Your task to perform on an android device: Search for "macbook pro 13 inch" on walmart, select the first entry, and add it to the cart. Image 0: 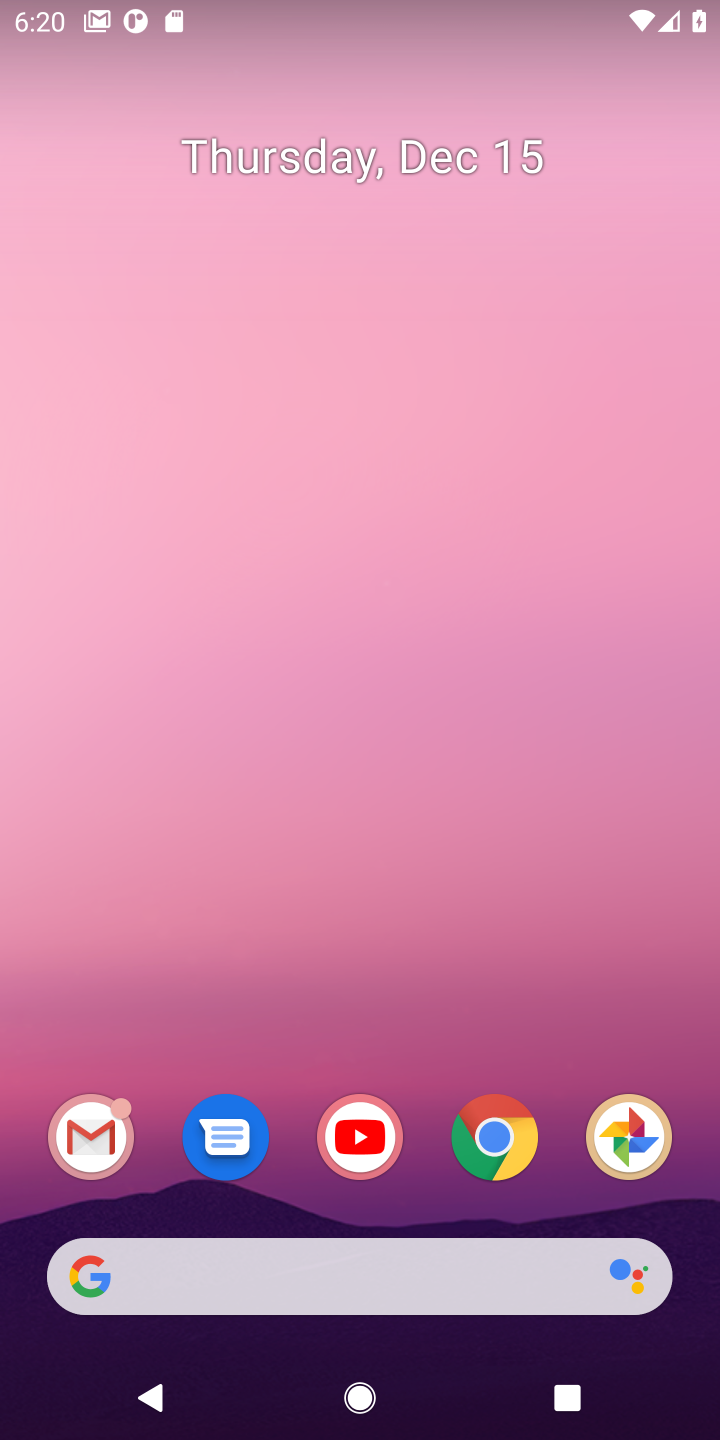
Step 0: drag from (364, 1259) to (357, 462)
Your task to perform on an android device: Search for "macbook pro 13 inch" on walmart, select the first entry, and add it to the cart. Image 1: 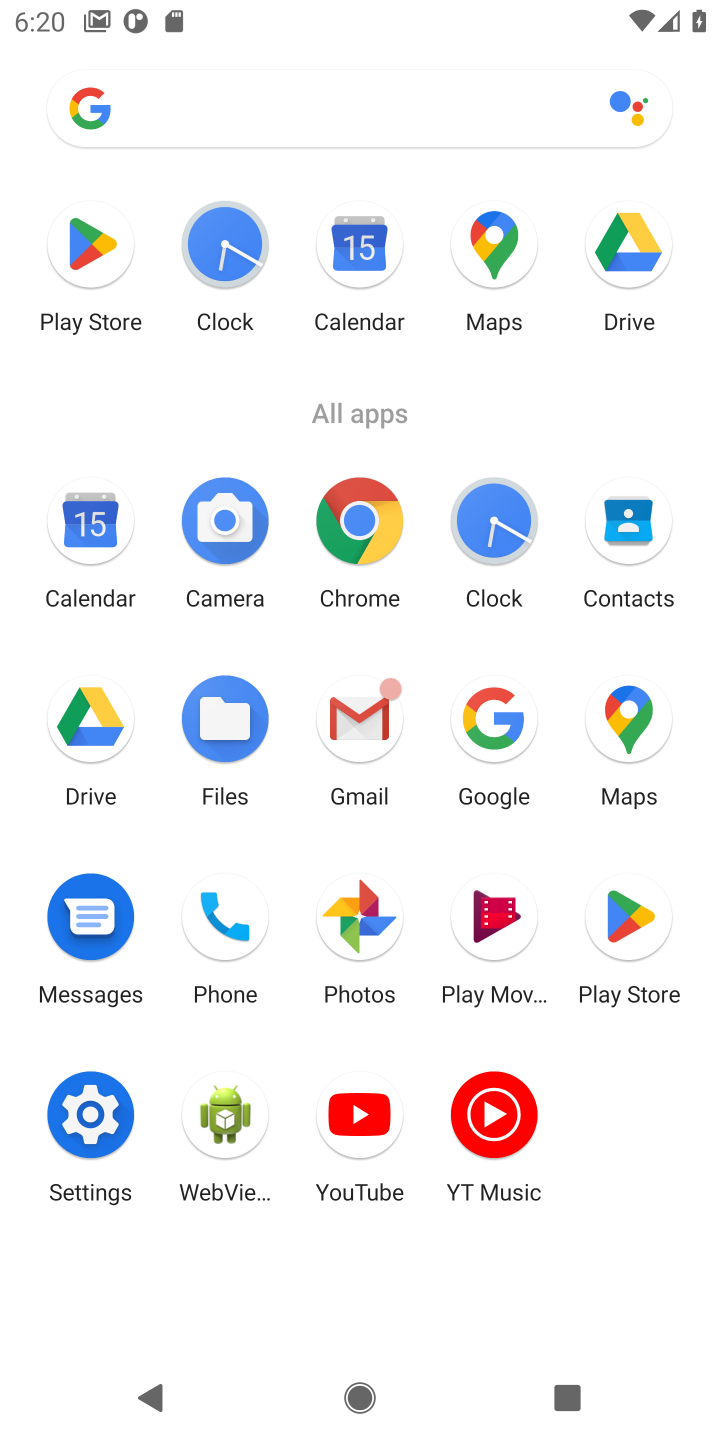
Step 1: click (505, 720)
Your task to perform on an android device: Search for "macbook pro 13 inch" on walmart, select the first entry, and add it to the cart. Image 2: 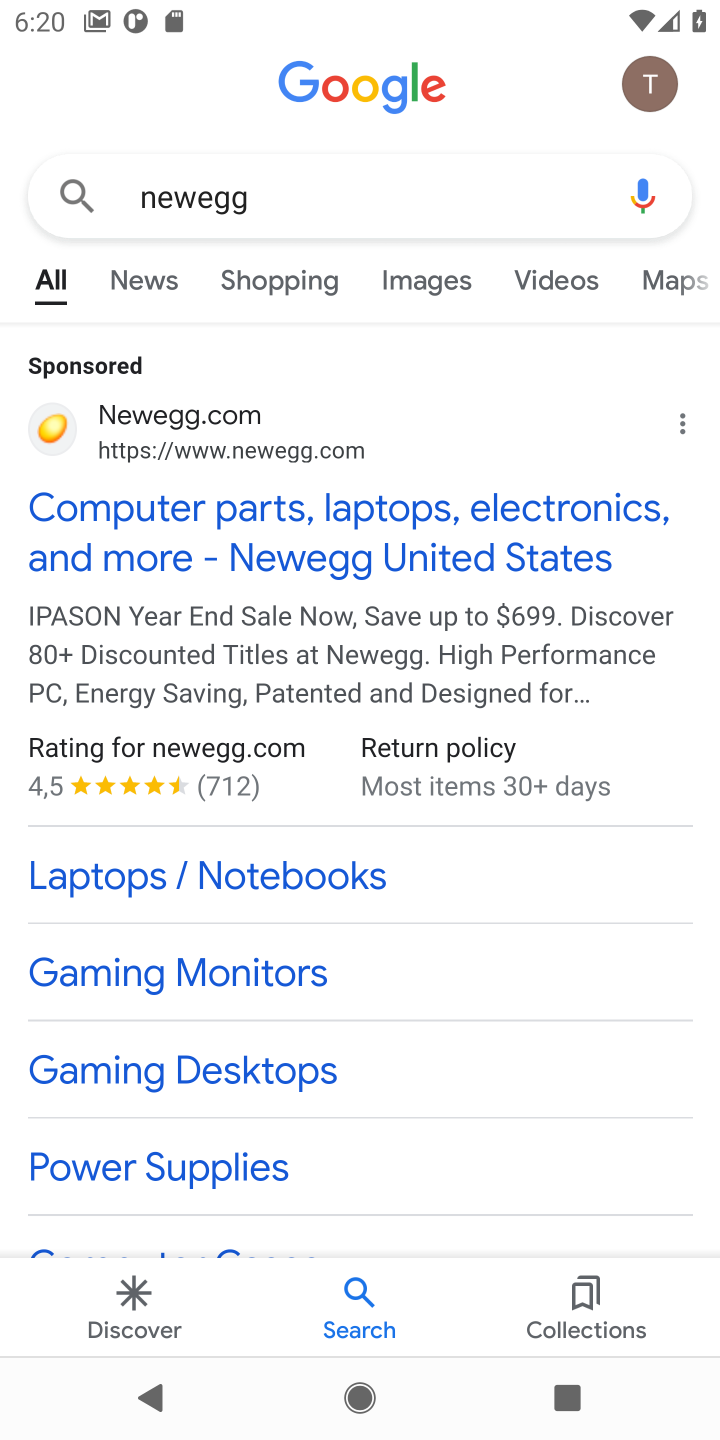
Step 2: click (193, 203)
Your task to perform on an android device: Search for "macbook pro 13 inch" on walmart, select the first entry, and add it to the cart. Image 3: 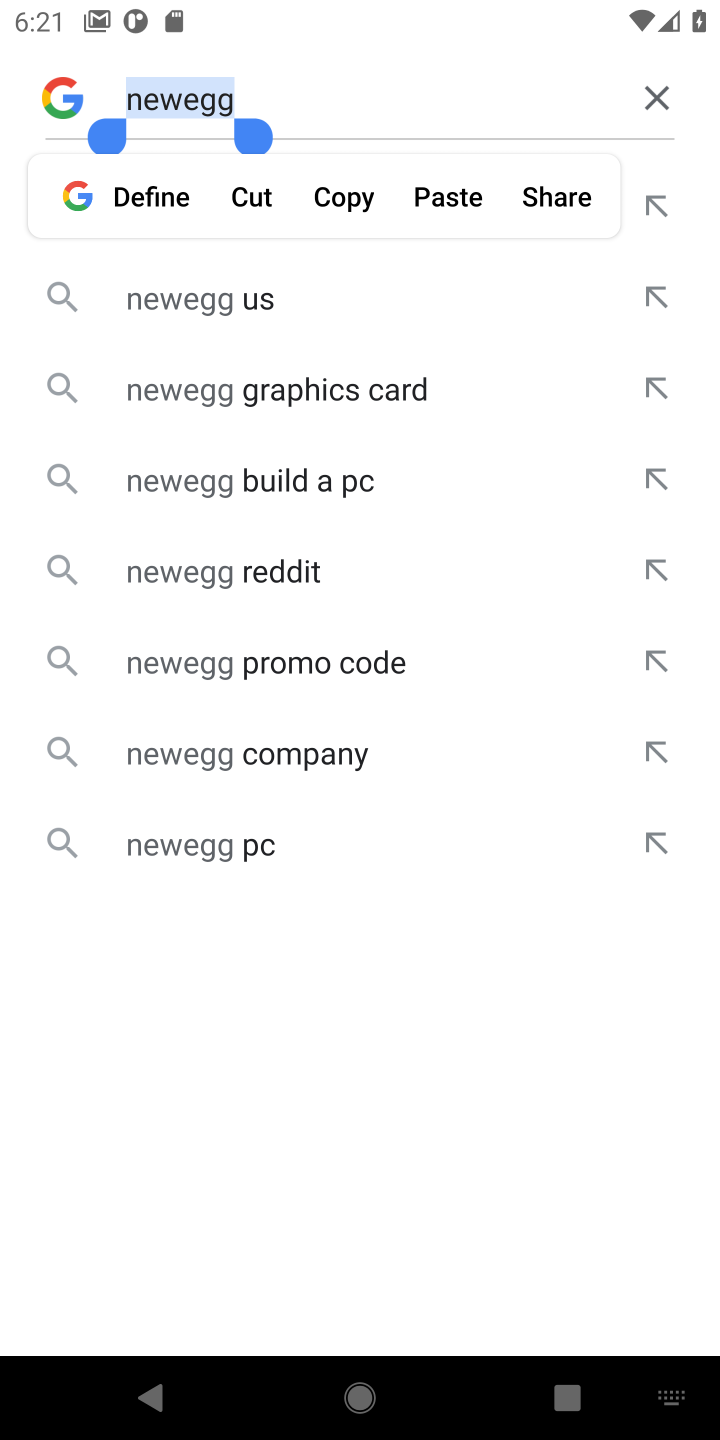
Step 3: click (659, 105)
Your task to perform on an android device: Search for "macbook pro 13 inch" on walmart, select the first entry, and add it to the cart. Image 4: 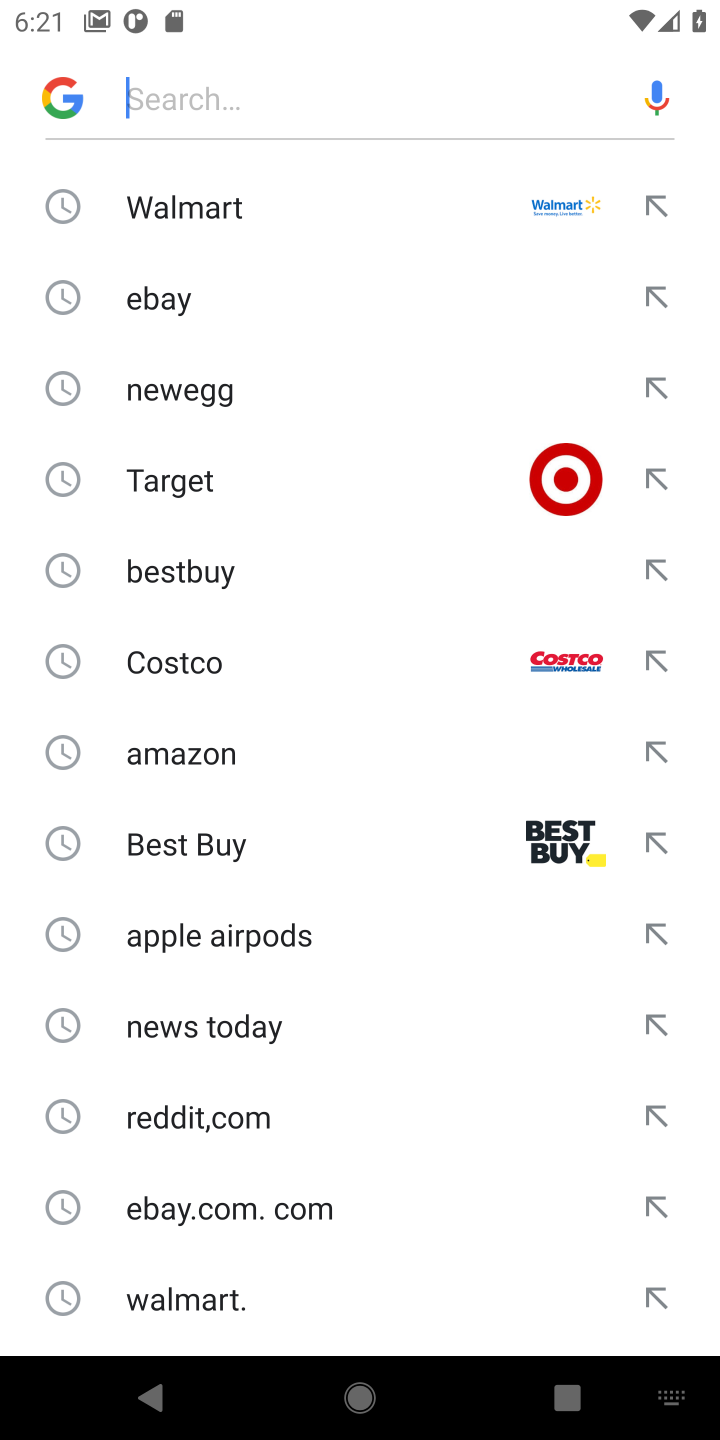
Step 4: click (153, 198)
Your task to perform on an android device: Search for "macbook pro 13 inch" on walmart, select the first entry, and add it to the cart. Image 5: 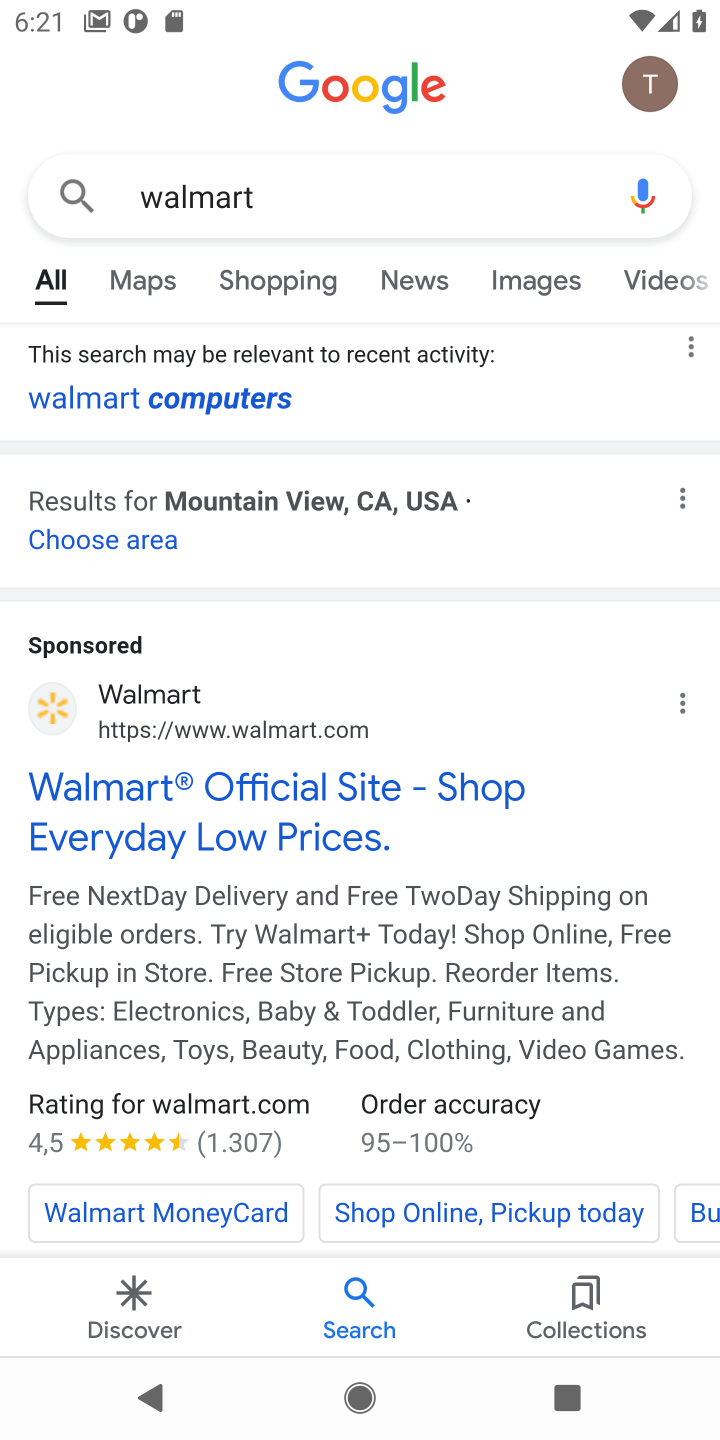
Step 5: click (260, 820)
Your task to perform on an android device: Search for "macbook pro 13 inch" on walmart, select the first entry, and add it to the cart. Image 6: 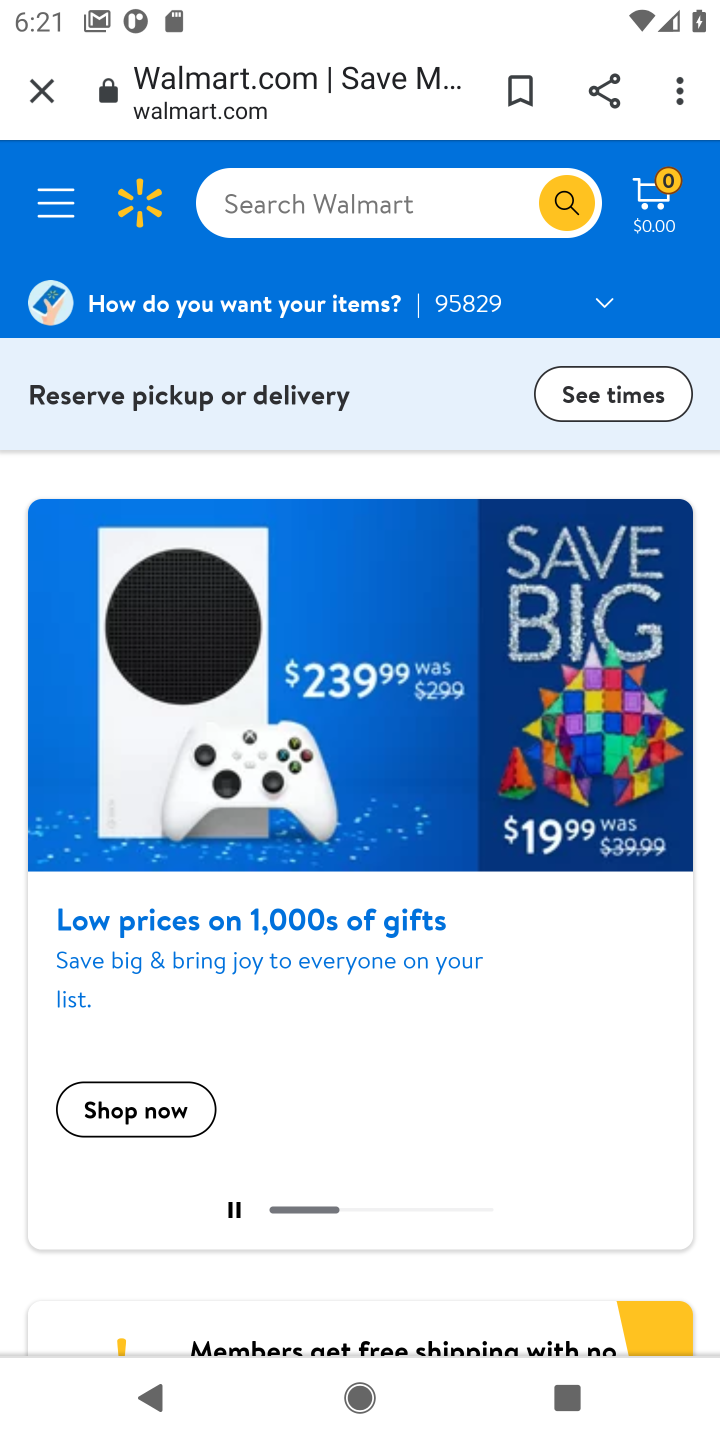
Step 6: click (319, 190)
Your task to perform on an android device: Search for "macbook pro 13 inch" on walmart, select the first entry, and add it to the cart. Image 7: 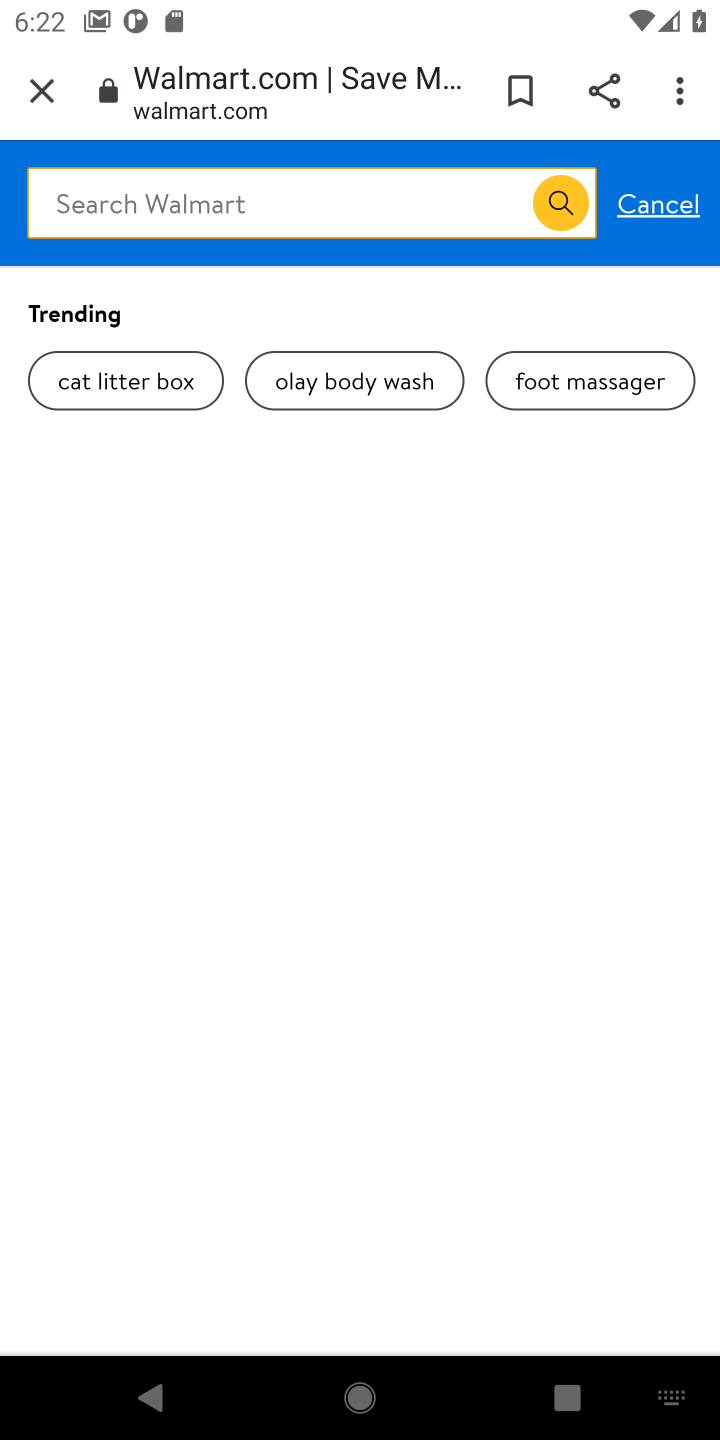
Step 7: type "macbook pro 13 inch"
Your task to perform on an android device: Search for "macbook pro 13 inch" on walmart, select the first entry, and add it to the cart. Image 8: 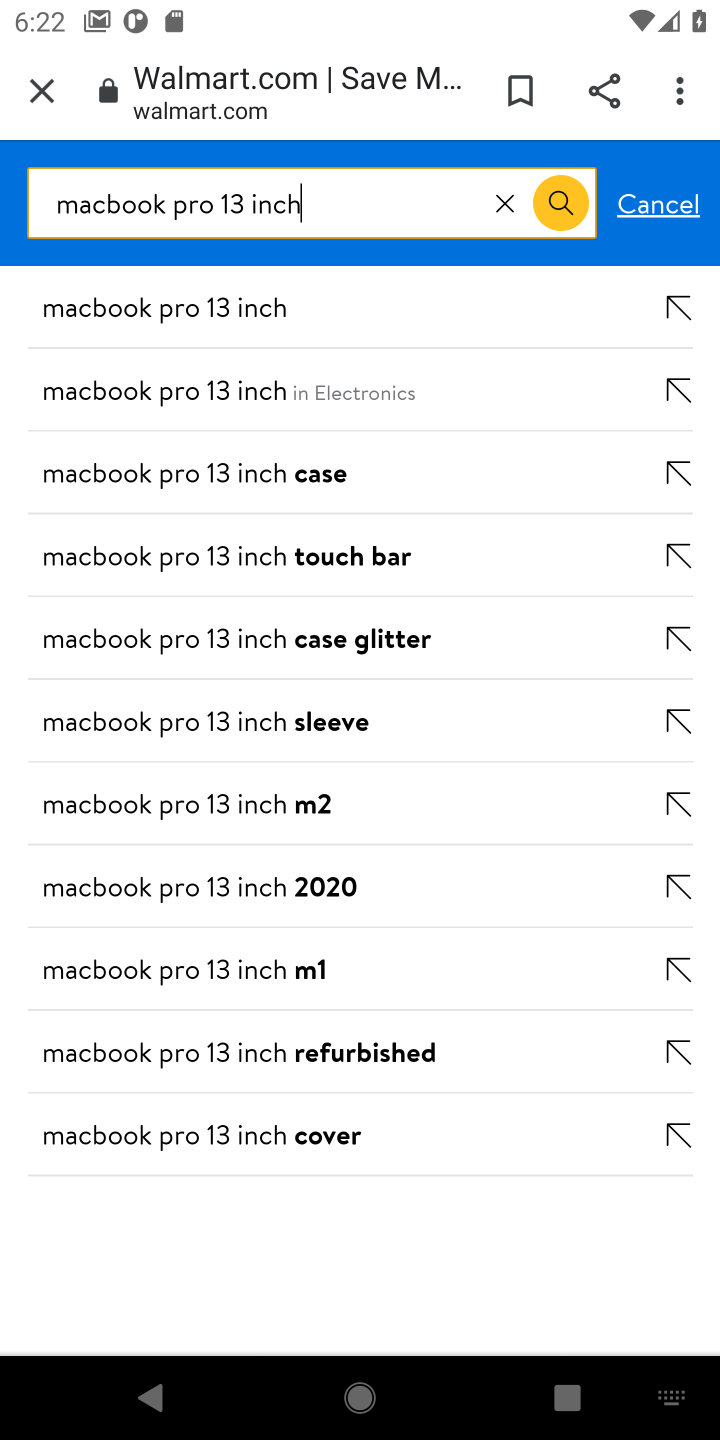
Step 8: click (191, 305)
Your task to perform on an android device: Search for "macbook pro 13 inch" on walmart, select the first entry, and add it to the cart. Image 9: 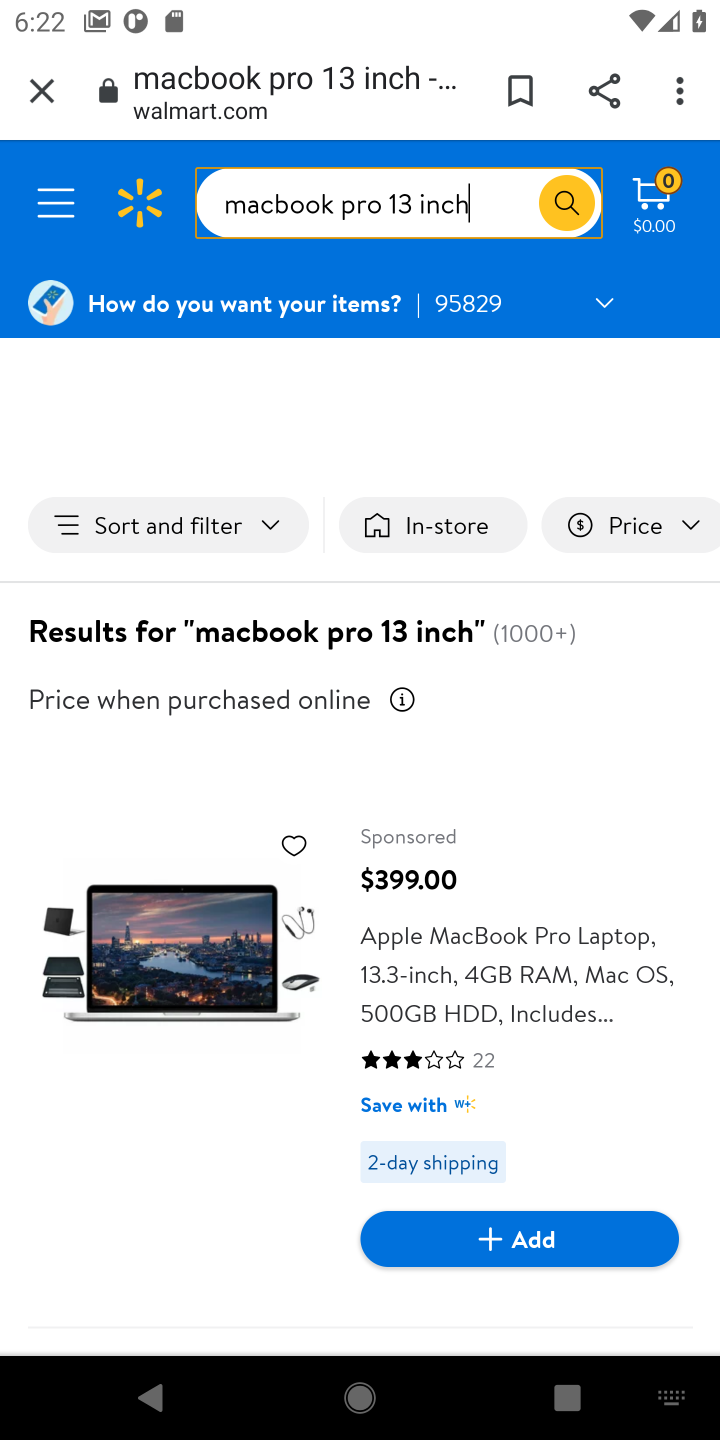
Step 9: click (504, 1244)
Your task to perform on an android device: Search for "macbook pro 13 inch" on walmart, select the first entry, and add it to the cart. Image 10: 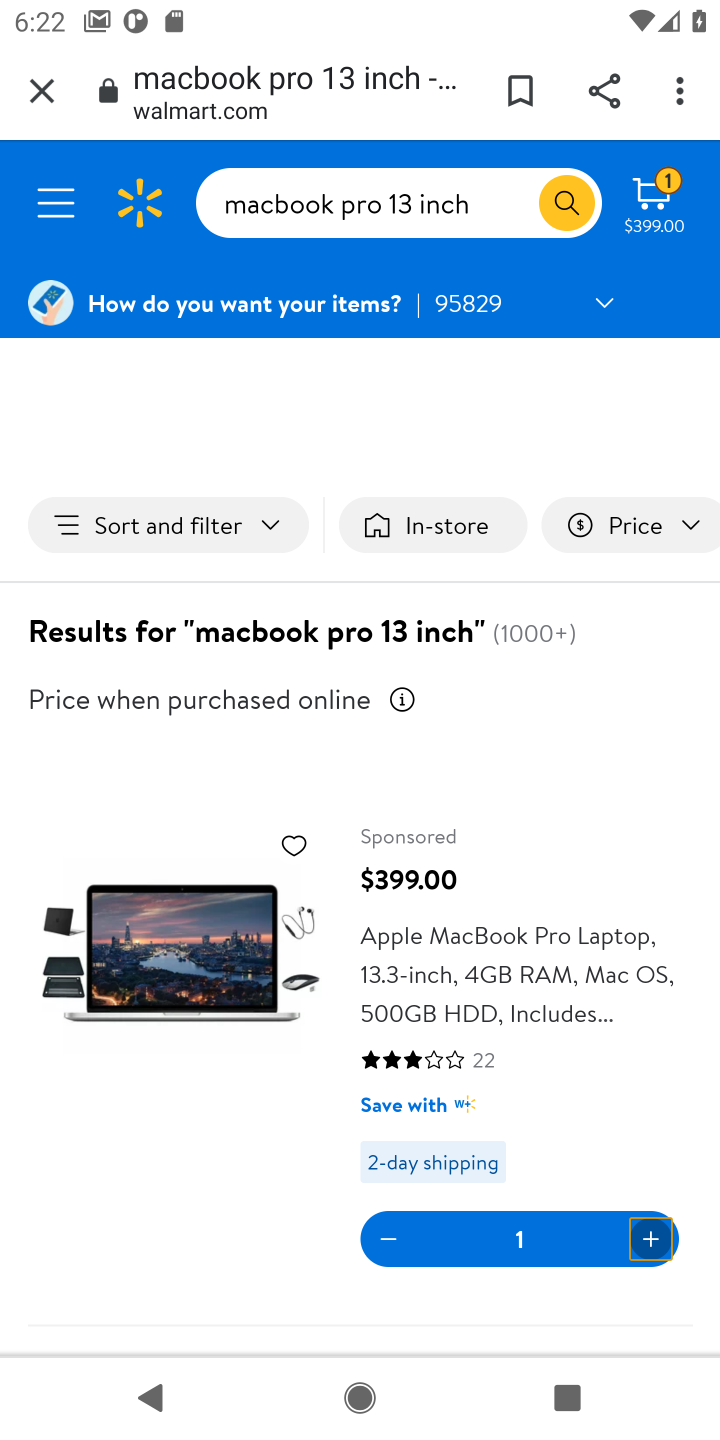
Step 10: task complete